Your task to perform on an android device: Is it going to rain today? Image 0: 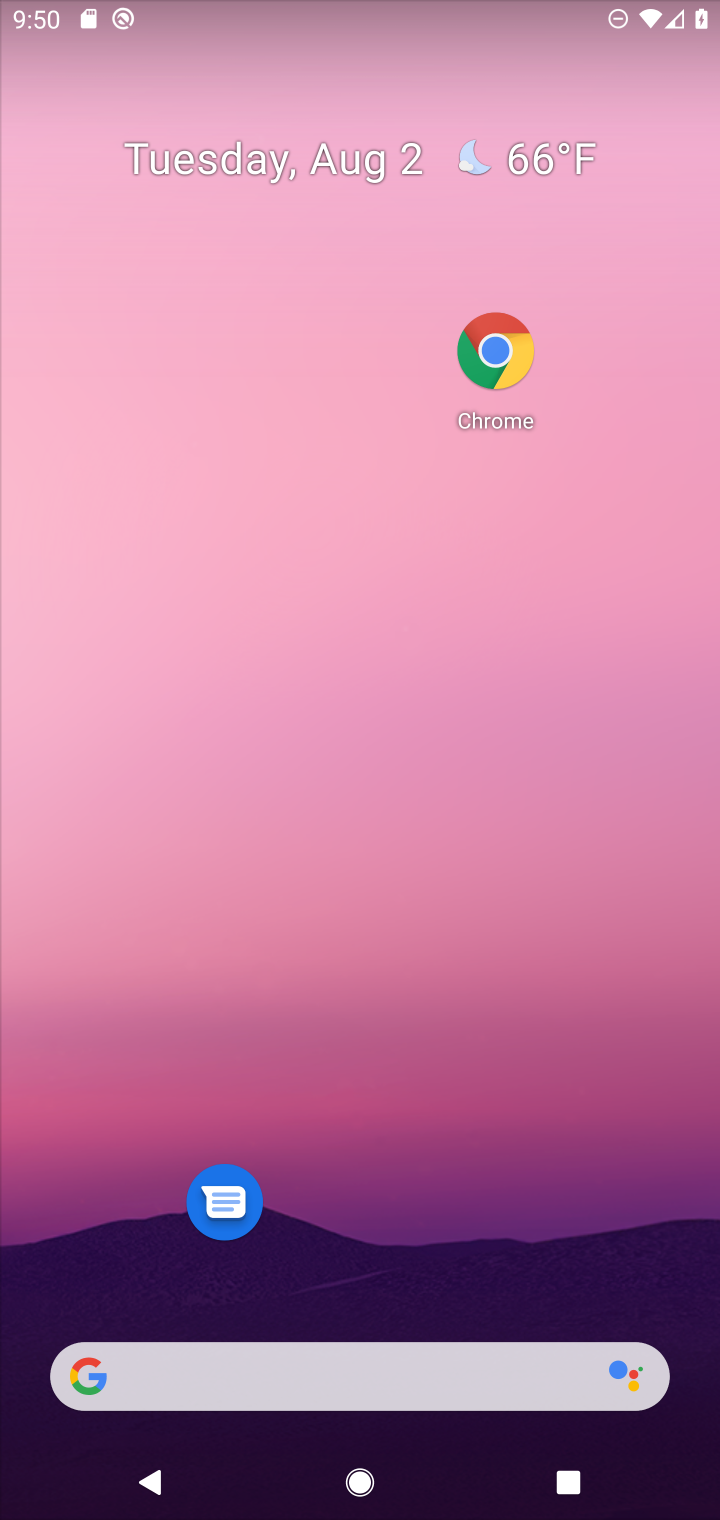
Step 0: click (520, 174)
Your task to perform on an android device: Is it going to rain today? Image 1: 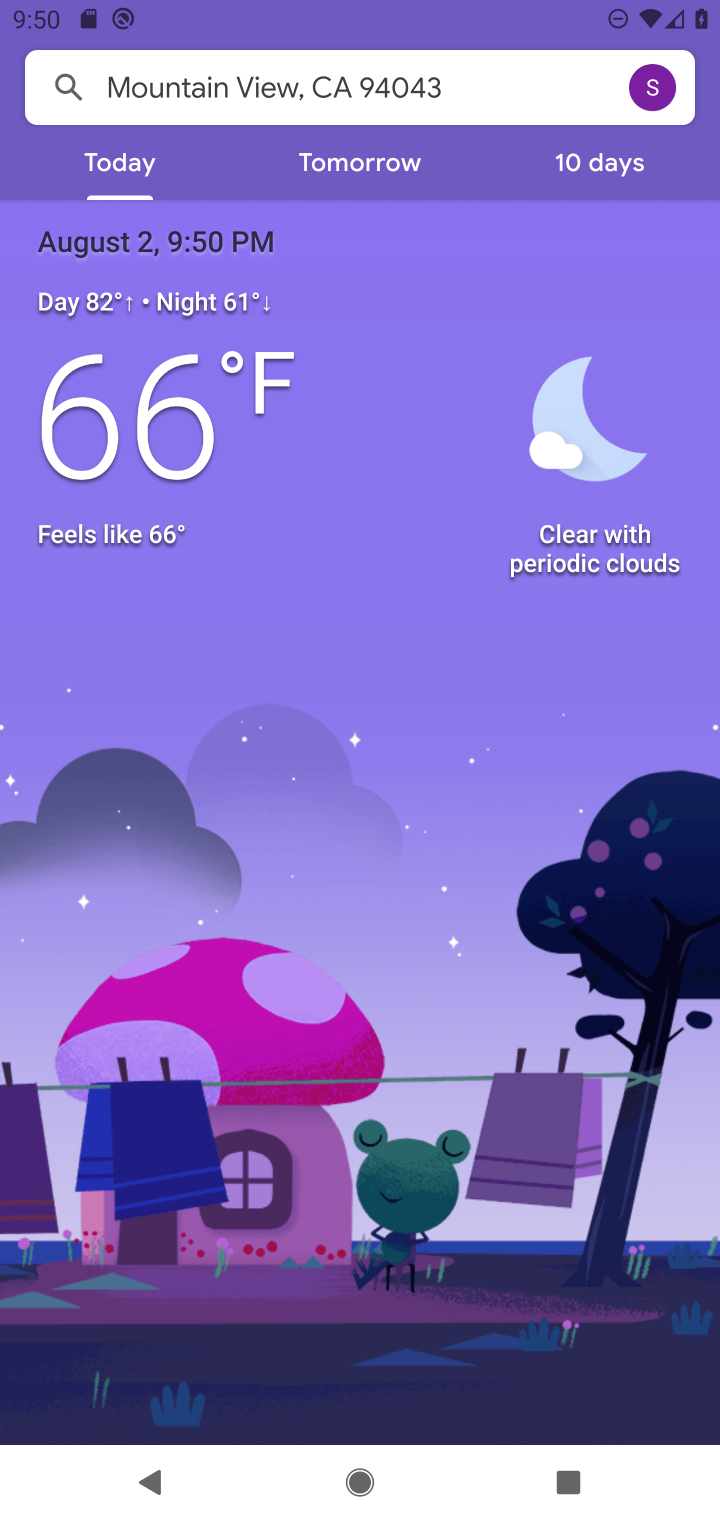
Step 1: task complete